Your task to perform on an android device: Who is the president of the United States? Image 0: 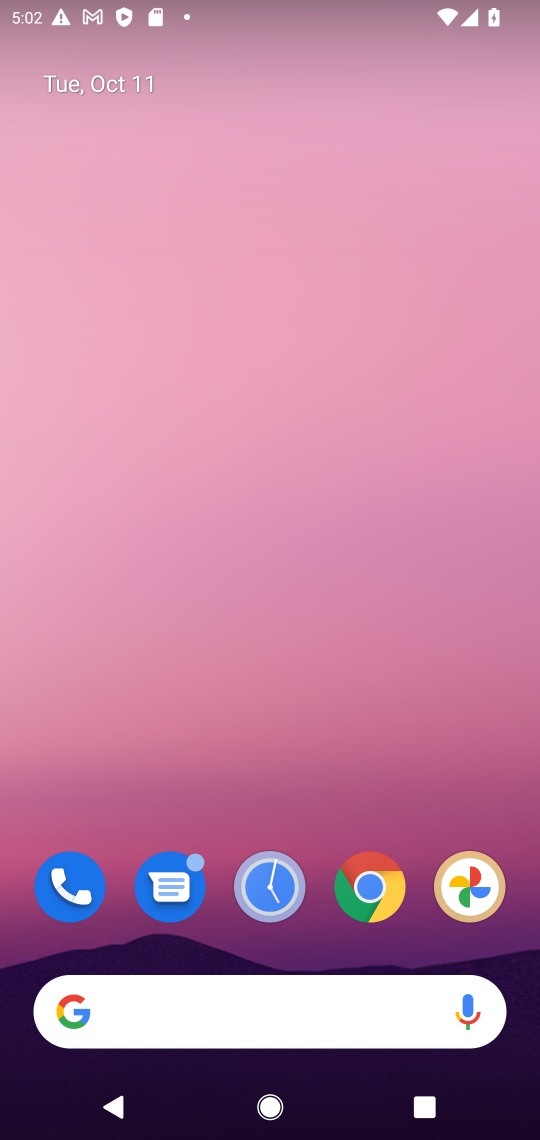
Step 0: click (264, 1007)
Your task to perform on an android device: Who is the president of the United States? Image 1: 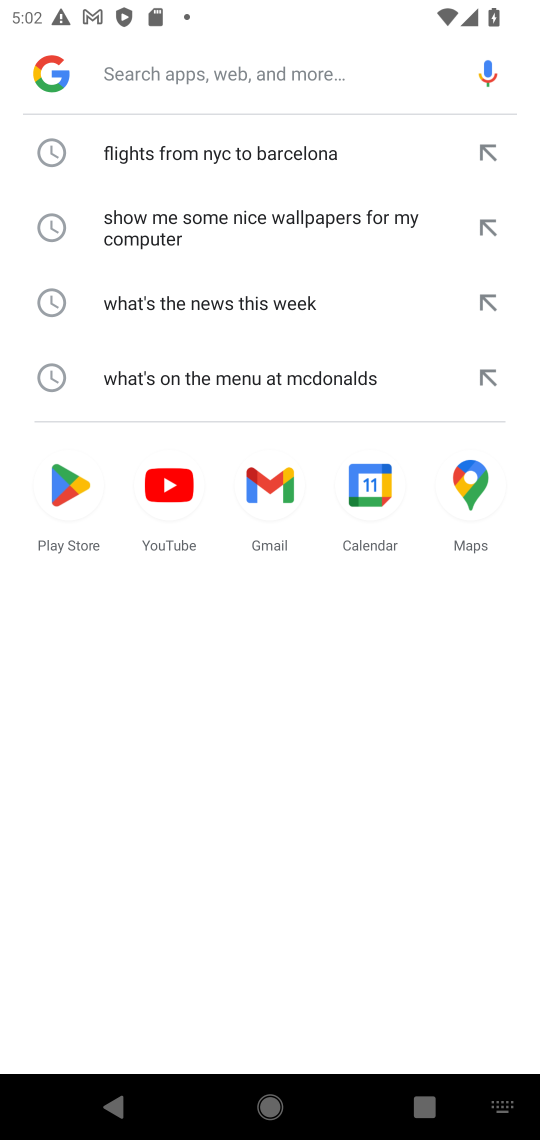
Step 1: type "Who is the president of the United States?"
Your task to perform on an android device: Who is the president of the United States? Image 2: 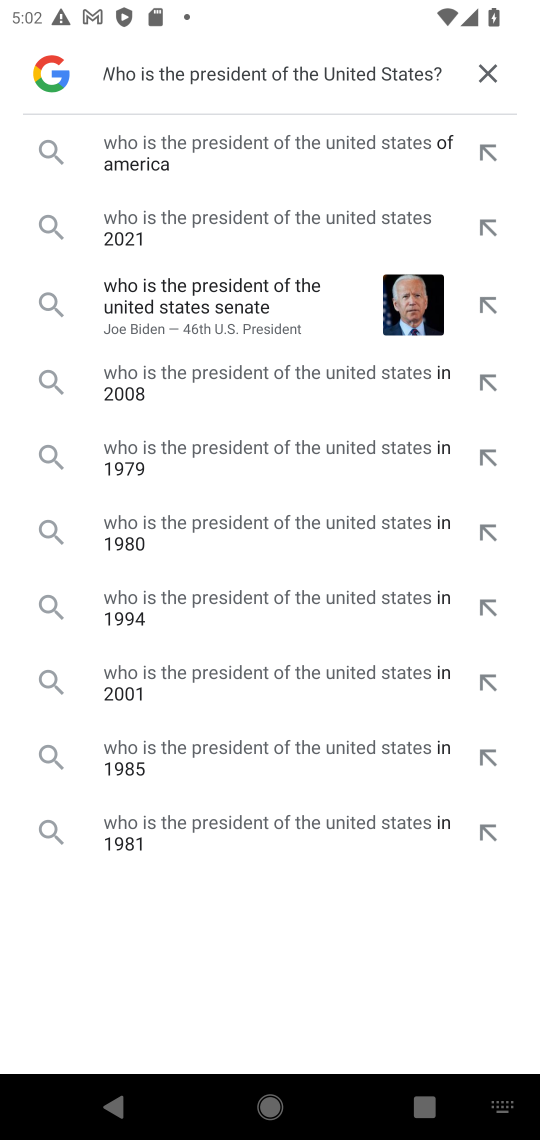
Step 2: click (354, 153)
Your task to perform on an android device: Who is the president of the United States? Image 3: 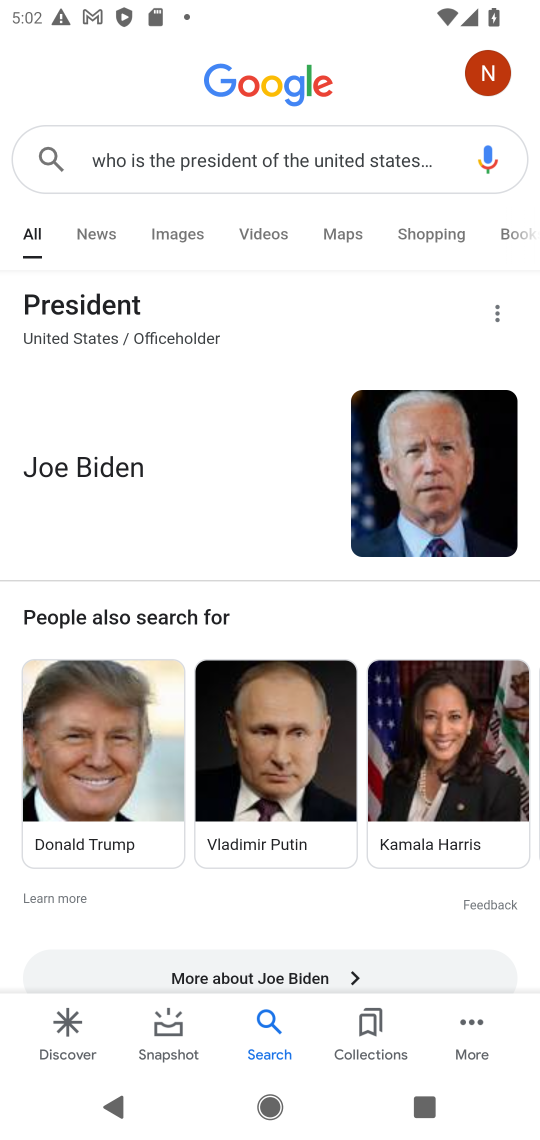
Step 3: task complete